Your task to perform on an android device: Open Android settings Image 0: 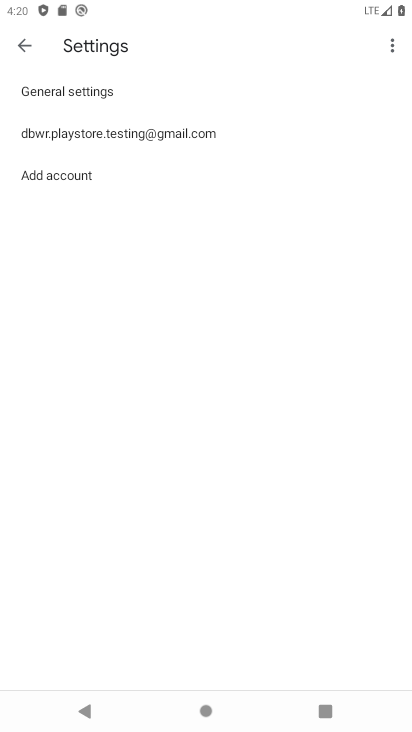
Step 0: click (22, 46)
Your task to perform on an android device: Open Android settings Image 1: 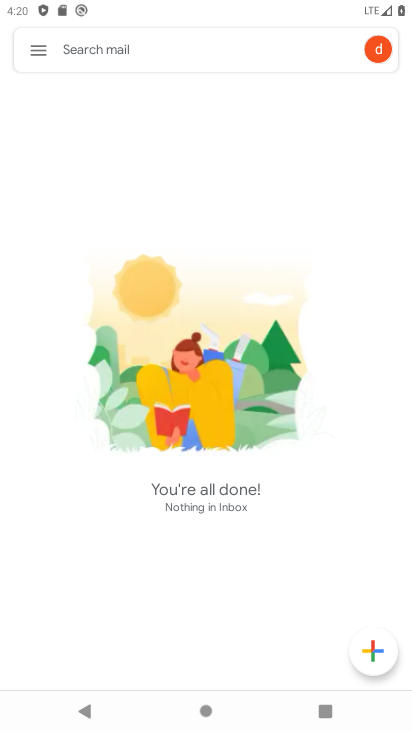
Step 1: click (35, 50)
Your task to perform on an android device: Open Android settings Image 2: 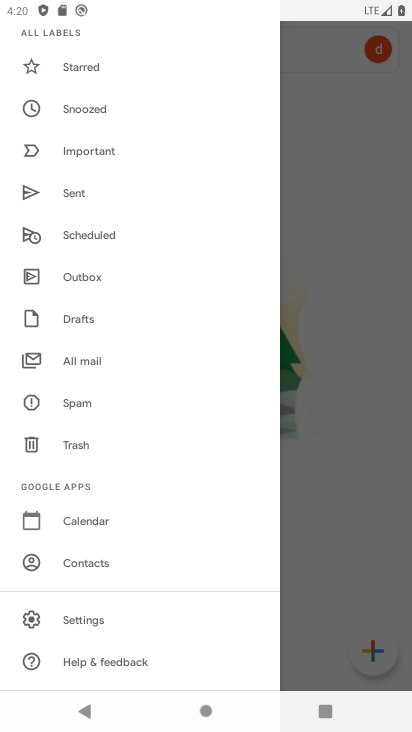
Step 2: click (89, 614)
Your task to perform on an android device: Open Android settings Image 3: 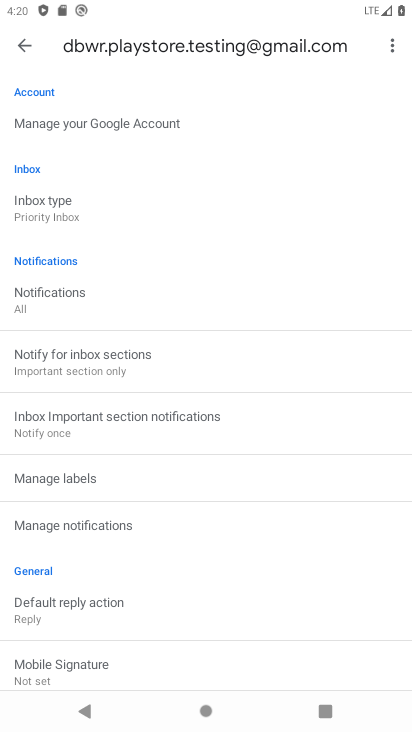
Step 3: drag from (178, 627) to (144, 222)
Your task to perform on an android device: Open Android settings Image 4: 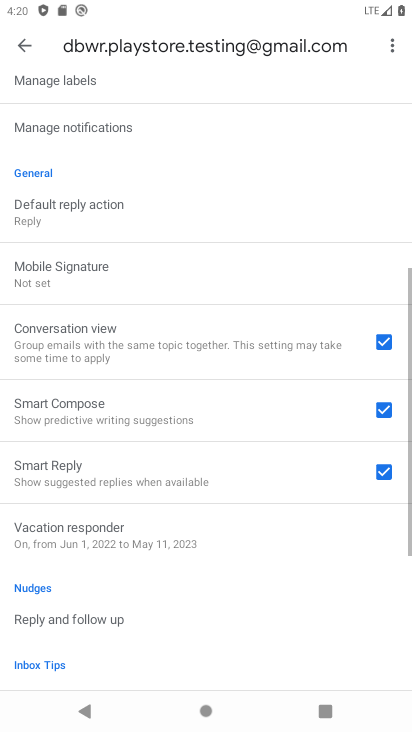
Step 4: drag from (95, 420) to (59, 179)
Your task to perform on an android device: Open Android settings Image 5: 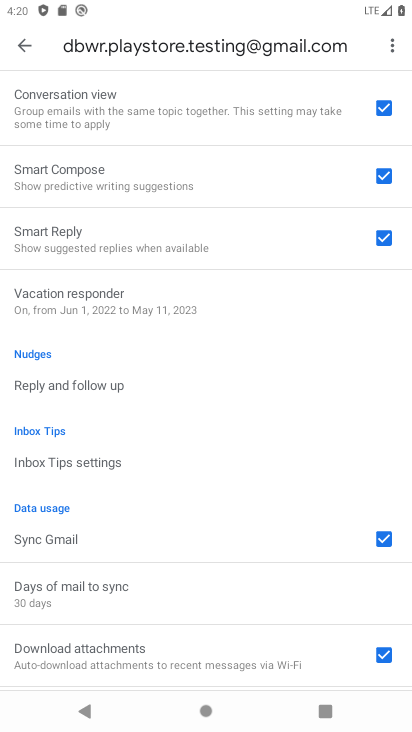
Step 5: click (12, 46)
Your task to perform on an android device: Open Android settings Image 6: 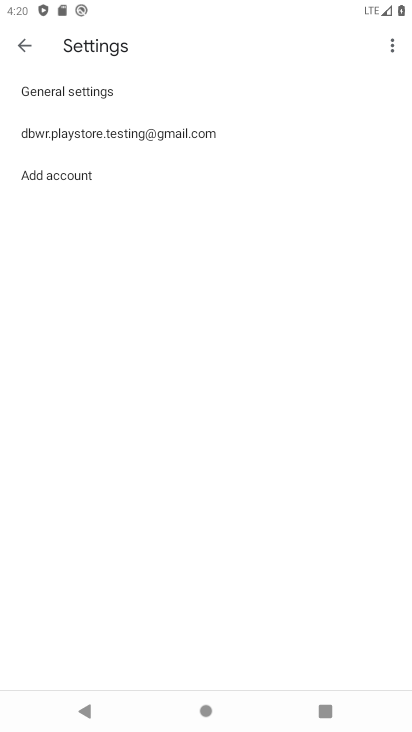
Step 6: click (19, 46)
Your task to perform on an android device: Open Android settings Image 7: 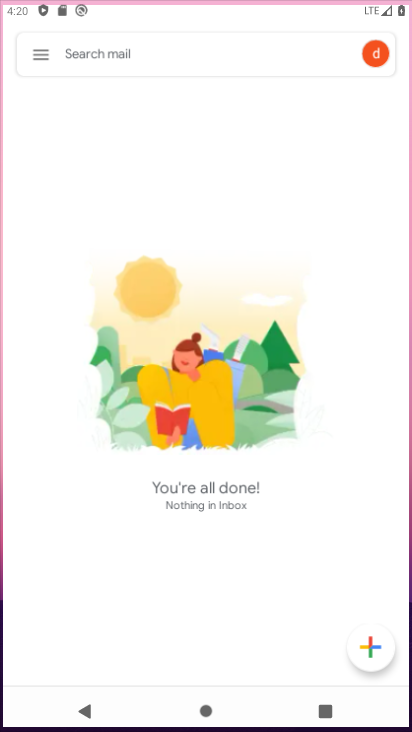
Step 7: click (19, 46)
Your task to perform on an android device: Open Android settings Image 8: 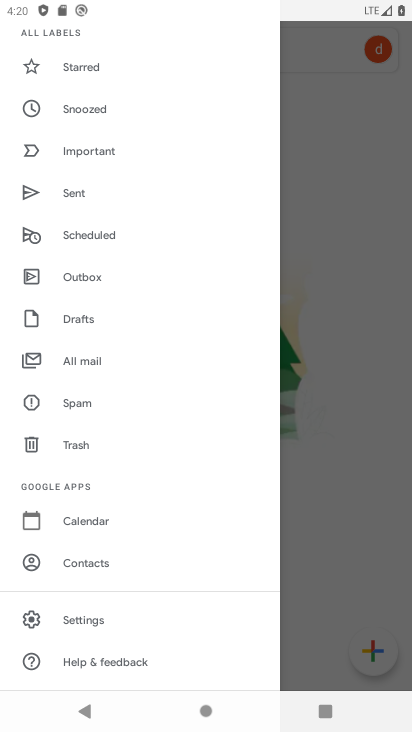
Step 8: press back button
Your task to perform on an android device: Open Android settings Image 9: 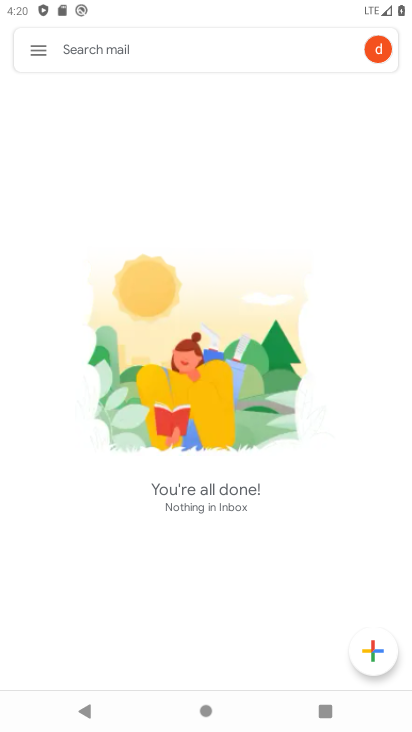
Step 9: press home button
Your task to perform on an android device: Open Android settings Image 10: 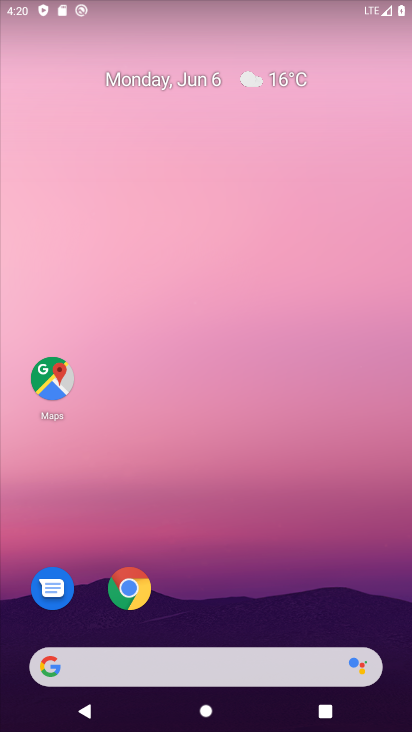
Step 10: drag from (233, 678) to (189, 179)
Your task to perform on an android device: Open Android settings Image 11: 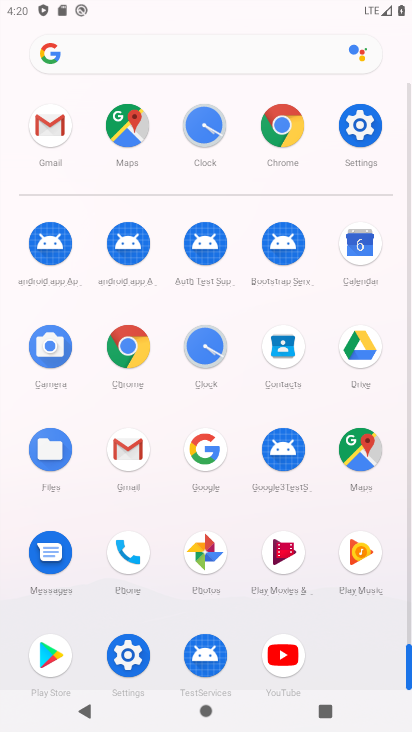
Step 11: click (128, 655)
Your task to perform on an android device: Open Android settings Image 12: 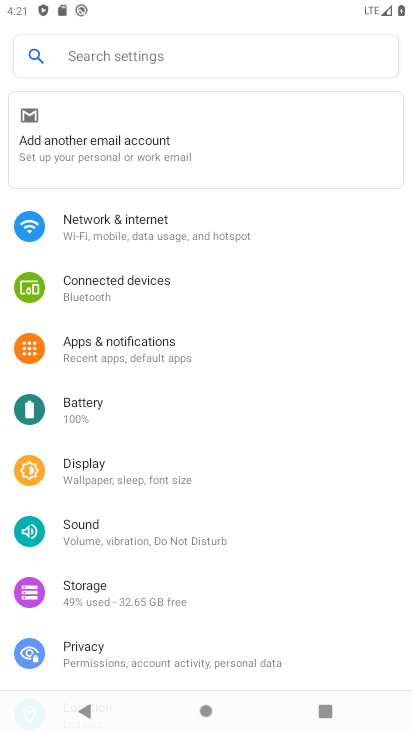
Step 12: drag from (125, 422) to (102, 149)
Your task to perform on an android device: Open Android settings Image 13: 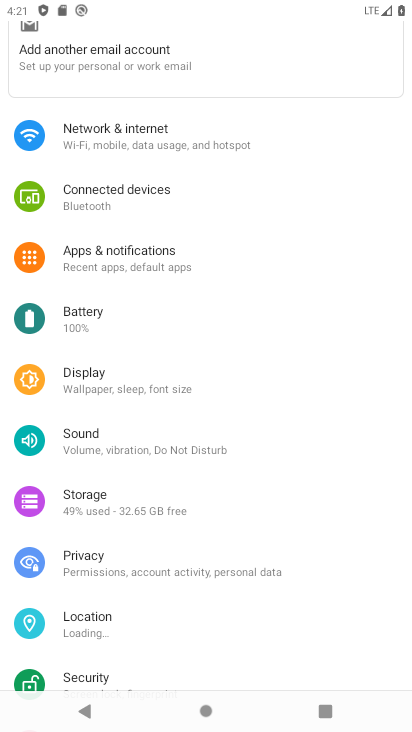
Step 13: drag from (163, 629) to (95, 149)
Your task to perform on an android device: Open Android settings Image 14: 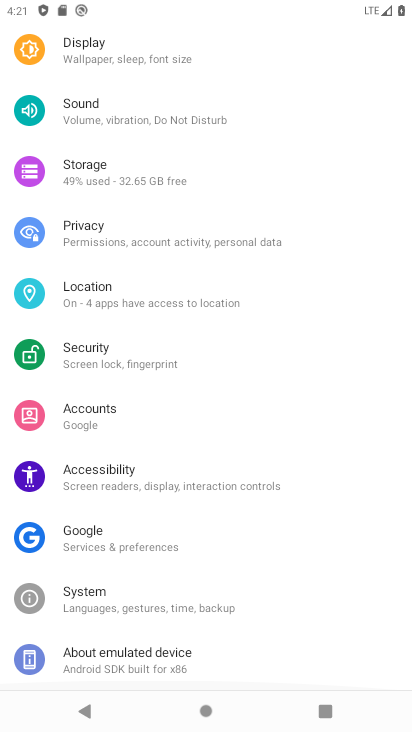
Step 14: drag from (178, 445) to (103, 91)
Your task to perform on an android device: Open Android settings Image 15: 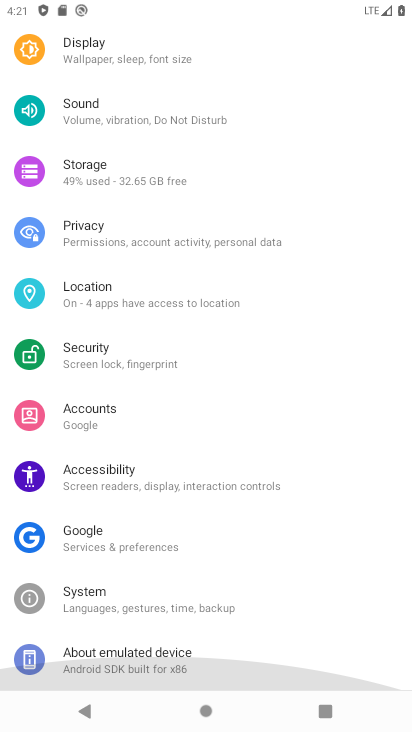
Step 15: drag from (159, 492) to (105, 52)
Your task to perform on an android device: Open Android settings Image 16: 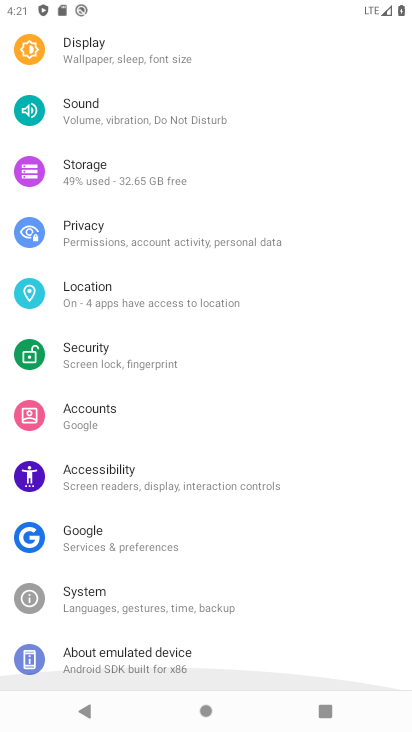
Step 16: click (94, 139)
Your task to perform on an android device: Open Android settings Image 17: 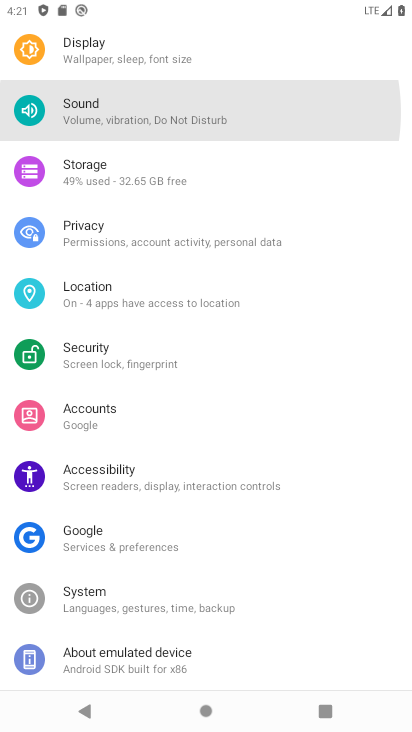
Step 17: click (129, 661)
Your task to perform on an android device: Open Android settings Image 18: 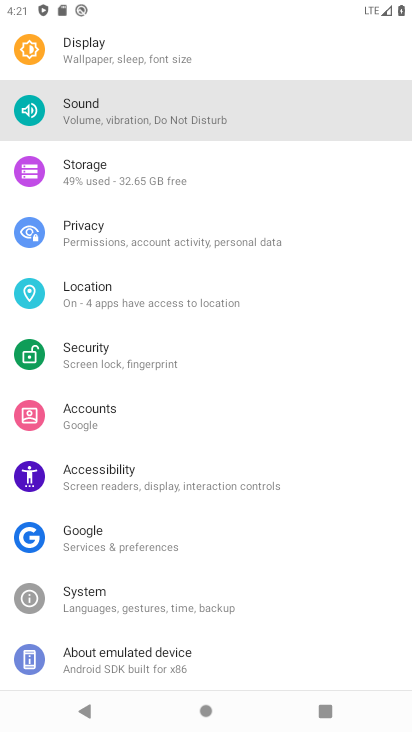
Step 18: click (129, 660)
Your task to perform on an android device: Open Android settings Image 19: 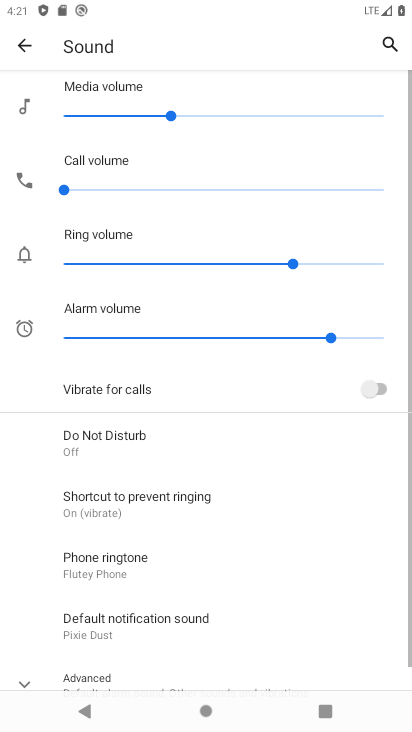
Step 19: click (137, 652)
Your task to perform on an android device: Open Android settings Image 20: 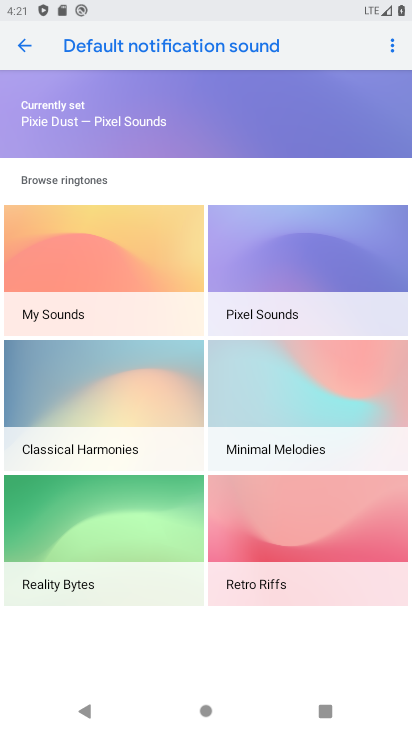
Step 20: task complete